Your task to perform on an android device: toggle wifi Image 0: 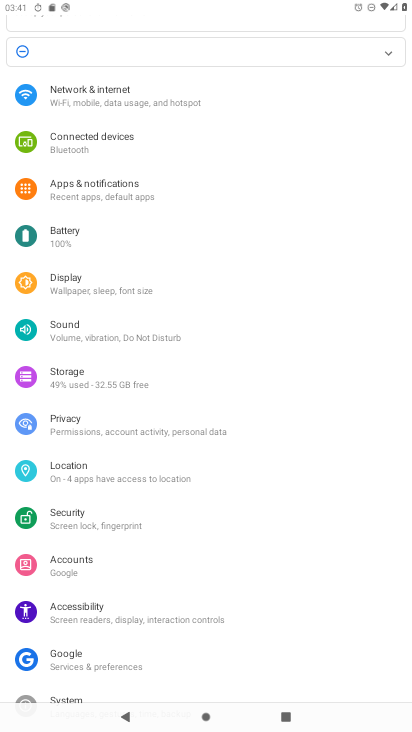
Step 0: press home button
Your task to perform on an android device: toggle wifi Image 1: 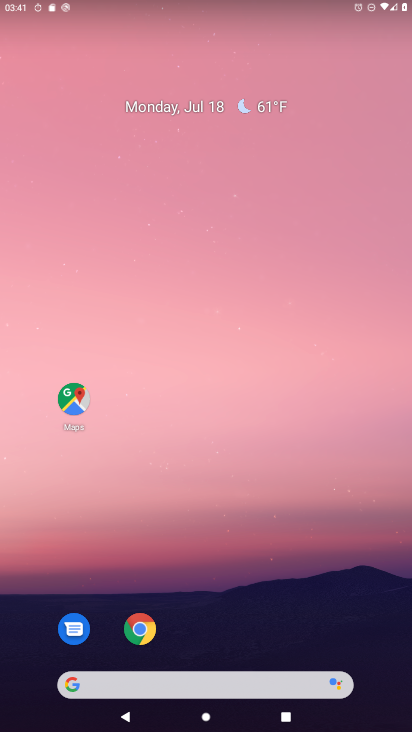
Step 1: drag from (196, 685) to (282, 200)
Your task to perform on an android device: toggle wifi Image 2: 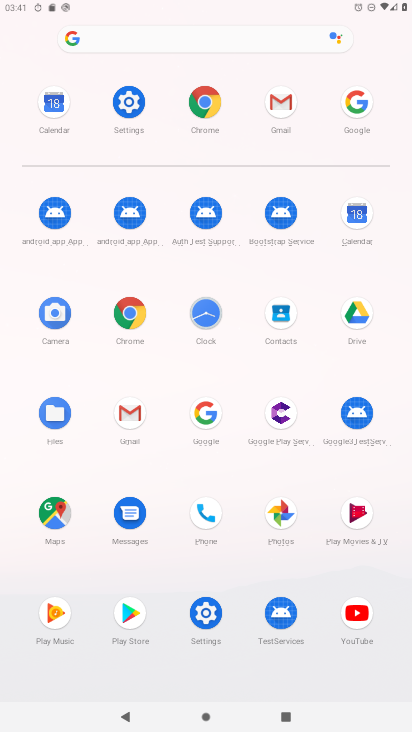
Step 2: click (129, 100)
Your task to perform on an android device: toggle wifi Image 3: 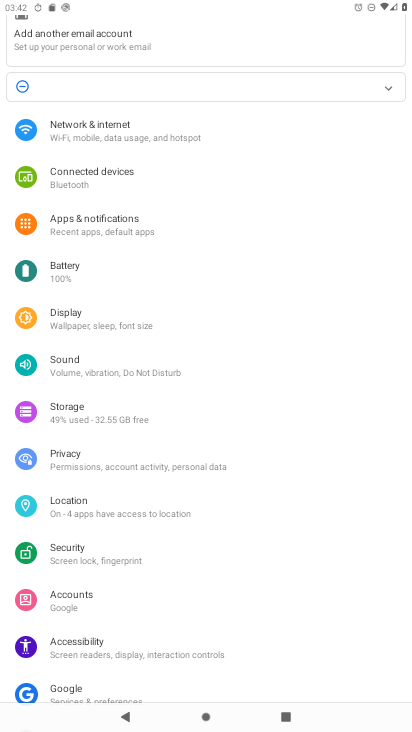
Step 3: click (102, 138)
Your task to perform on an android device: toggle wifi Image 4: 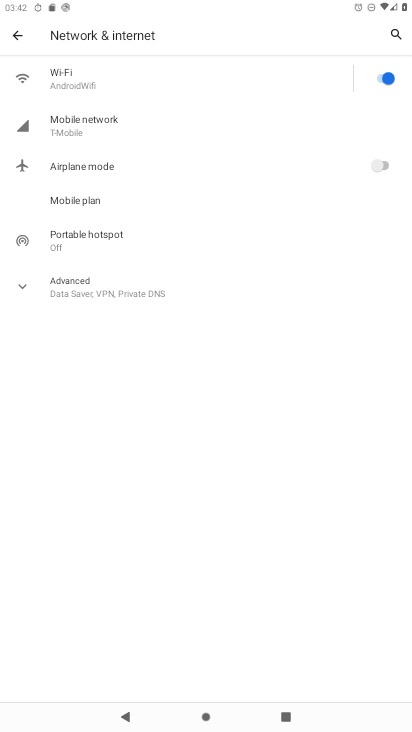
Step 4: click (391, 81)
Your task to perform on an android device: toggle wifi Image 5: 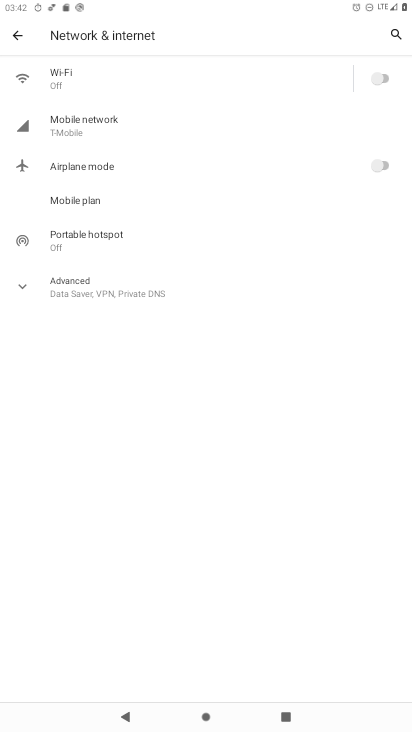
Step 5: task complete